Your task to perform on an android device: Find coffee shops on Maps Image 0: 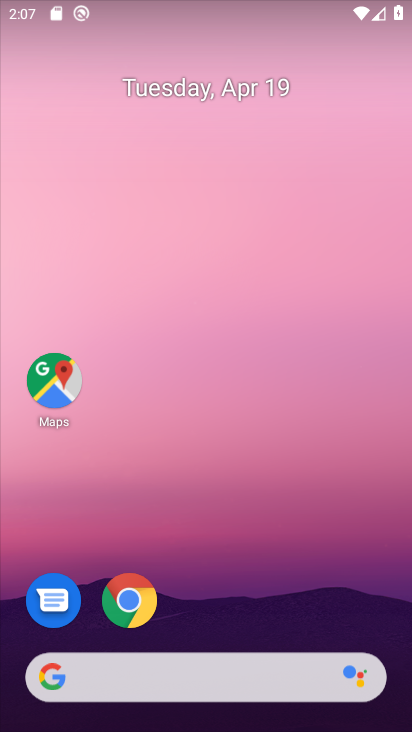
Step 0: drag from (219, 610) to (364, 85)
Your task to perform on an android device: Find coffee shops on Maps Image 1: 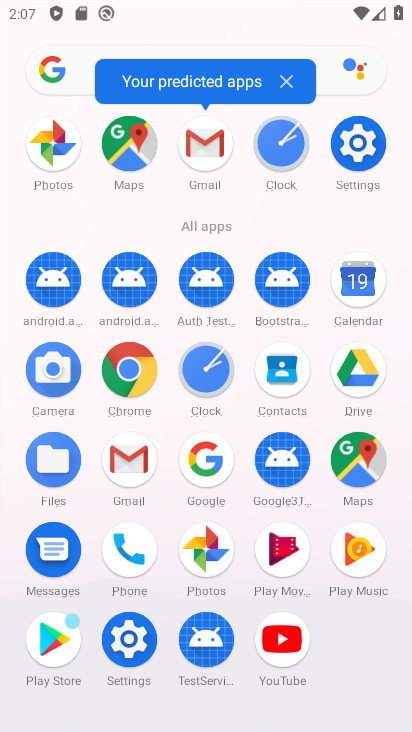
Step 1: click (131, 146)
Your task to perform on an android device: Find coffee shops on Maps Image 2: 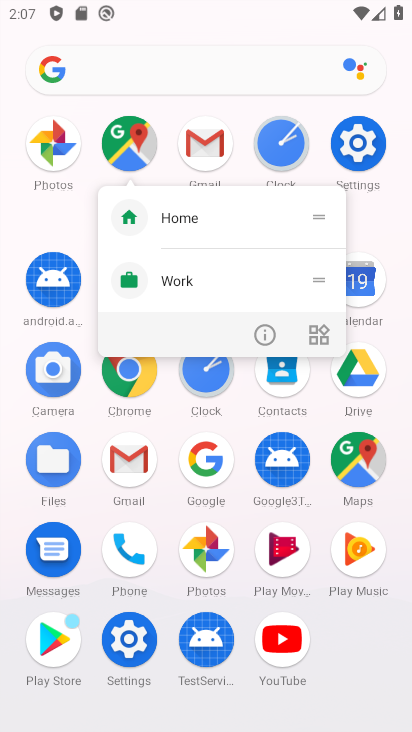
Step 2: click (130, 170)
Your task to perform on an android device: Find coffee shops on Maps Image 3: 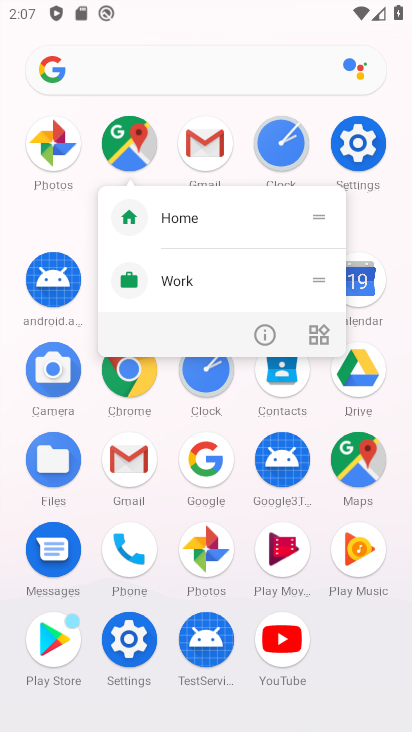
Step 3: click (126, 143)
Your task to perform on an android device: Find coffee shops on Maps Image 4: 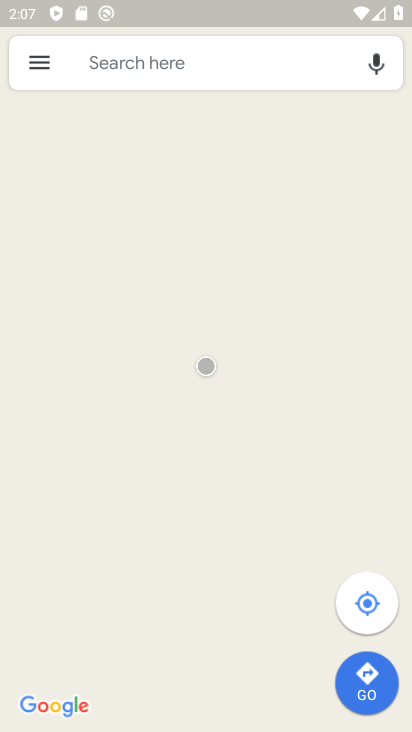
Step 4: click (173, 74)
Your task to perform on an android device: Find coffee shops on Maps Image 5: 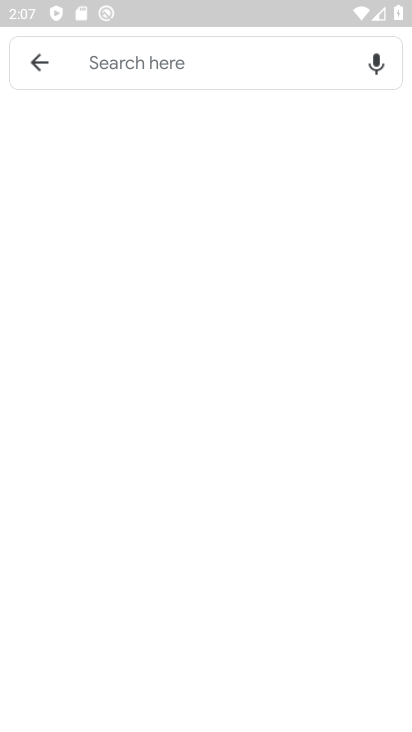
Step 5: click (179, 68)
Your task to perform on an android device: Find coffee shops on Maps Image 6: 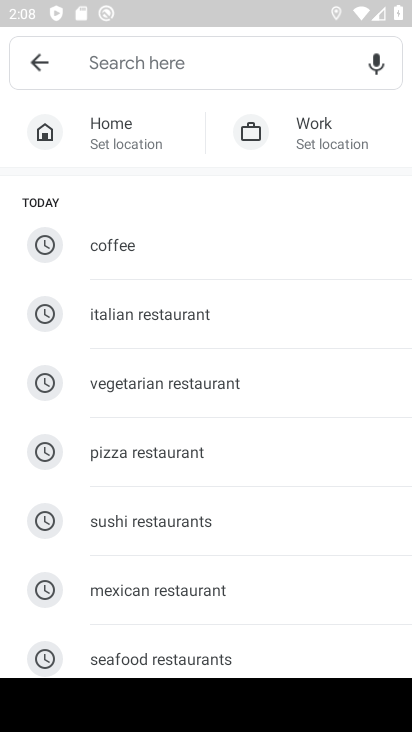
Step 6: type "coffee shops"
Your task to perform on an android device: Find coffee shops on Maps Image 7: 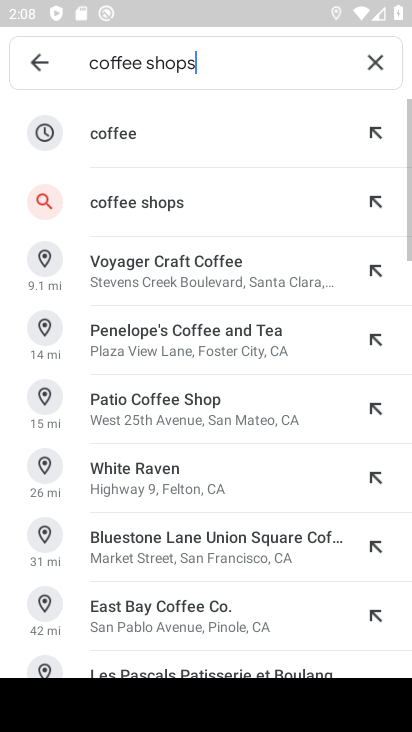
Step 7: click (185, 208)
Your task to perform on an android device: Find coffee shops on Maps Image 8: 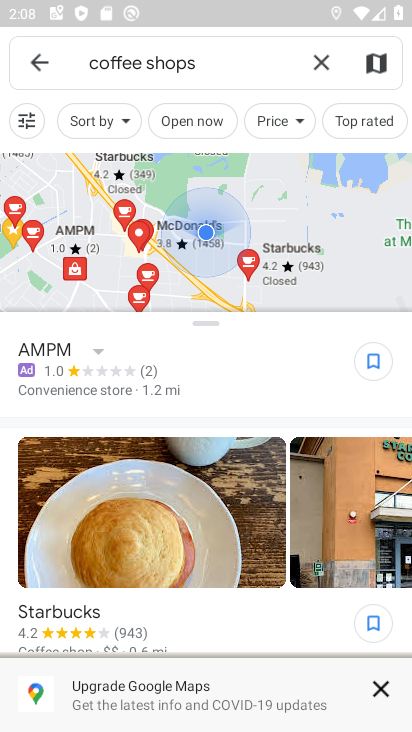
Step 8: task complete